Your task to perform on an android device: set an alarm Image 0: 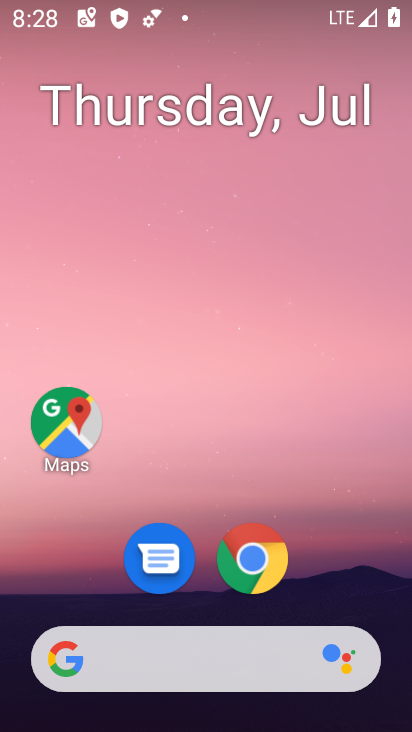
Step 0: drag from (252, 700) to (249, 193)
Your task to perform on an android device: set an alarm Image 1: 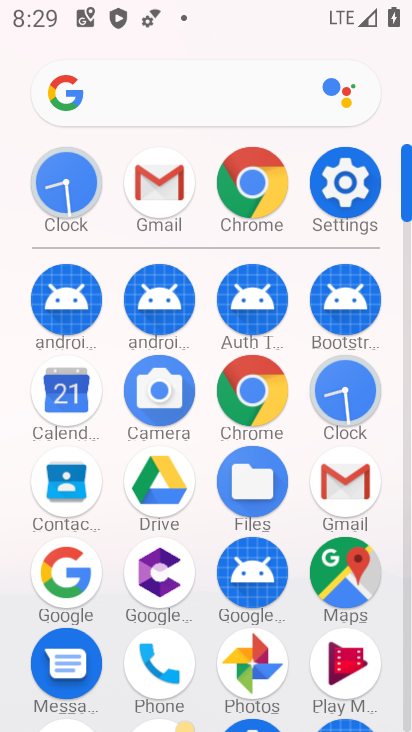
Step 1: click (328, 411)
Your task to perform on an android device: set an alarm Image 2: 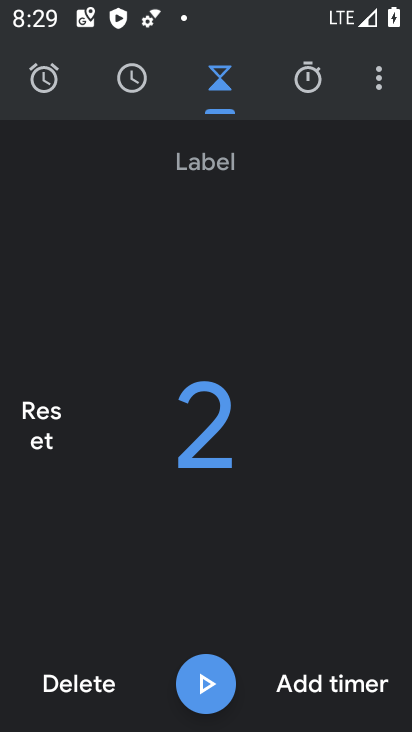
Step 2: click (51, 88)
Your task to perform on an android device: set an alarm Image 3: 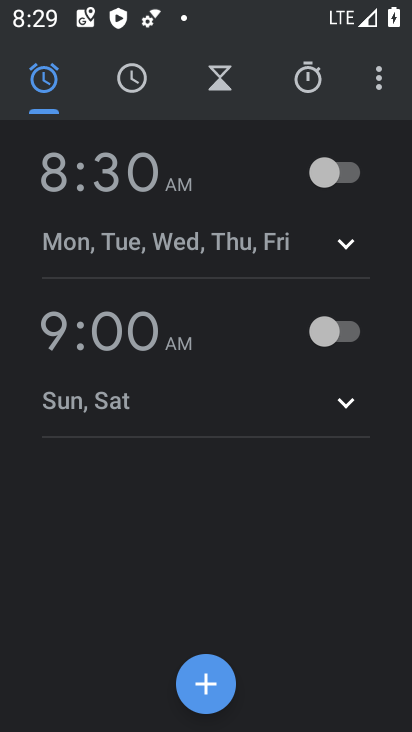
Step 3: click (203, 690)
Your task to perform on an android device: set an alarm Image 4: 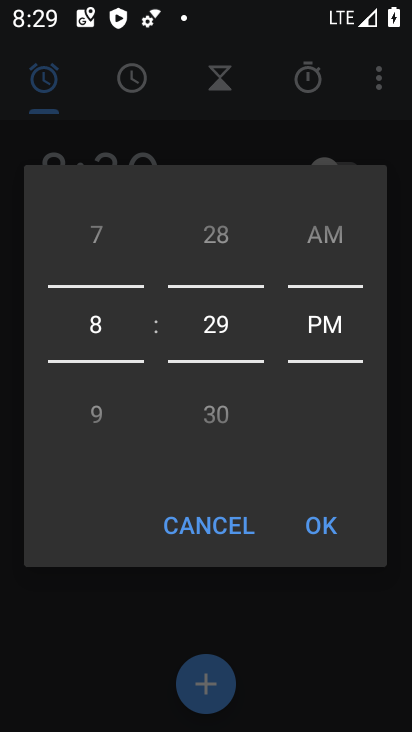
Step 4: click (315, 526)
Your task to perform on an android device: set an alarm Image 5: 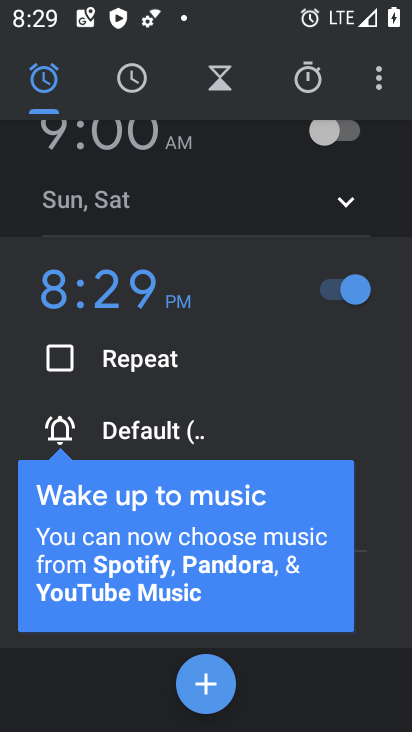
Step 5: task complete